Your task to perform on an android device: turn on sleep mode Image 0: 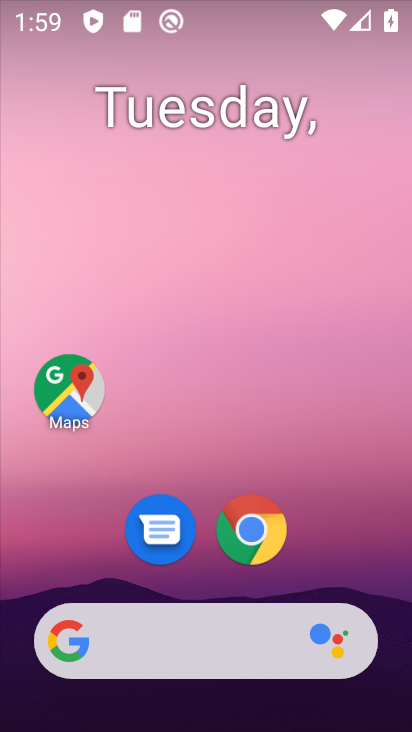
Step 0: drag from (395, 634) to (261, 115)
Your task to perform on an android device: turn on sleep mode Image 1: 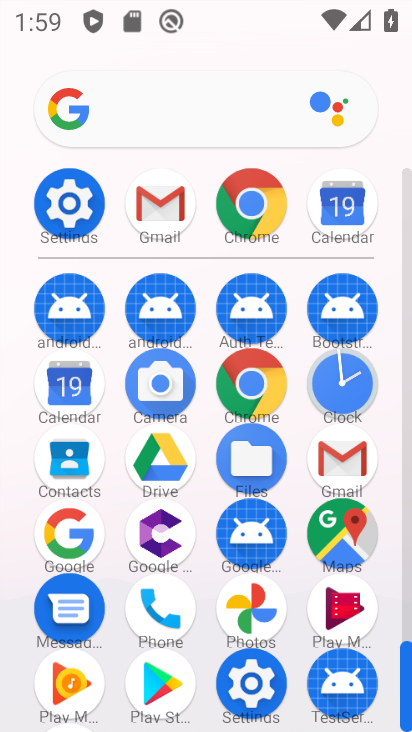
Step 1: click (49, 210)
Your task to perform on an android device: turn on sleep mode Image 2: 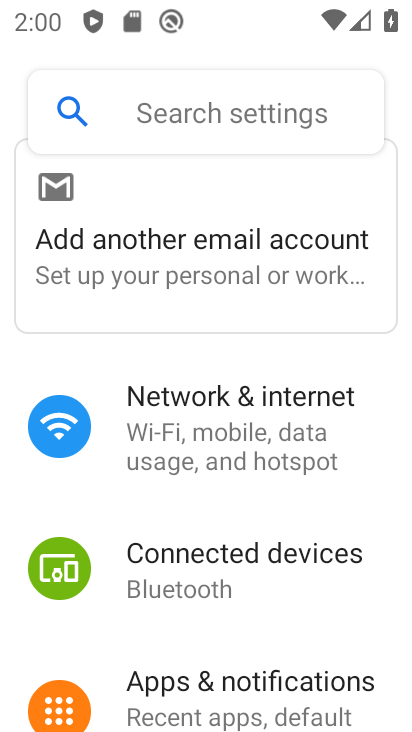
Step 2: task complete